Your task to perform on an android device: change the upload size in google photos Image 0: 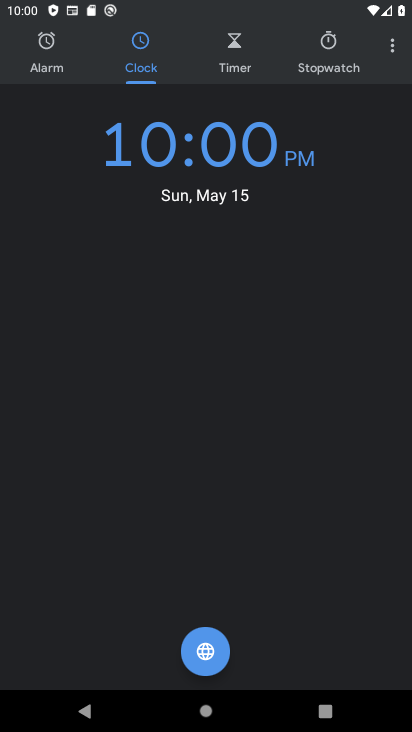
Step 0: press home button
Your task to perform on an android device: change the upload size in google photos Image 1: 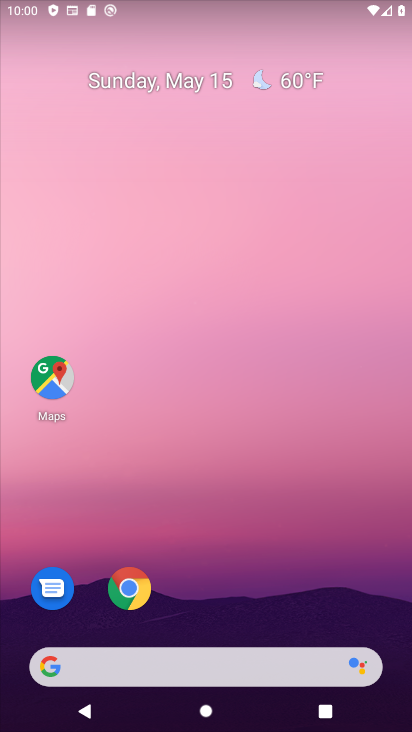
Step 1: drag from (291, 602) to (254, 188)
Your task to perform on an android device: change the upload size in google photos Image 2: 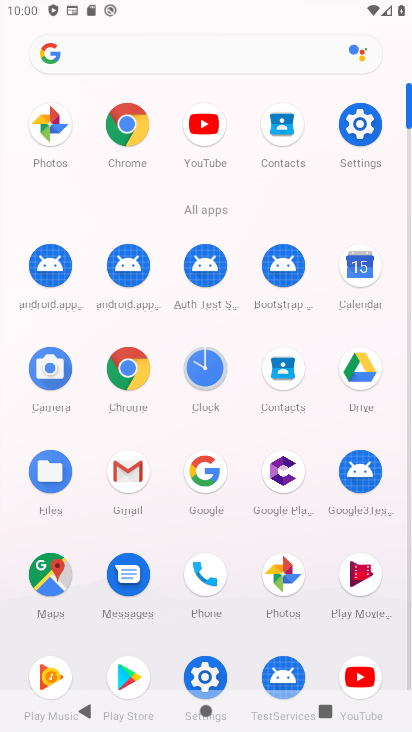
Step 2: click (45, 143)
Your task to perform on an android device: change the upload size in google photos Image 3: 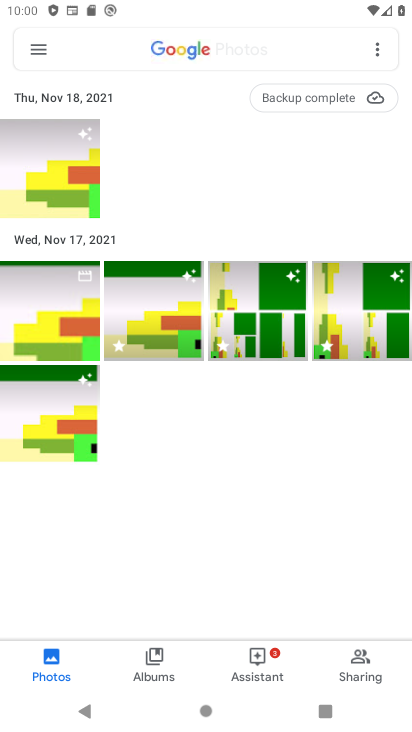
Step 3: click (42, 53)
Your task to perform on an android device: change the upload size in google photos Image 4: 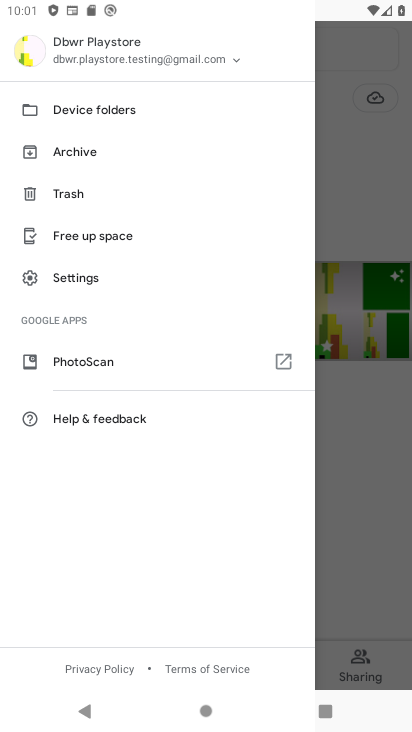
Step 4: click (96, 275)
Your task to perform on an android device: change the upload size in google photos Image 5: 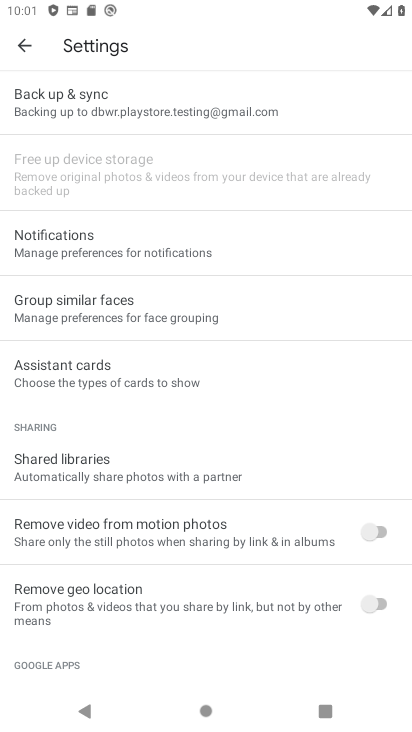
Step 5: click (192, 122)
Your task to perform on an android device: change the upload size in google photos Image 6: 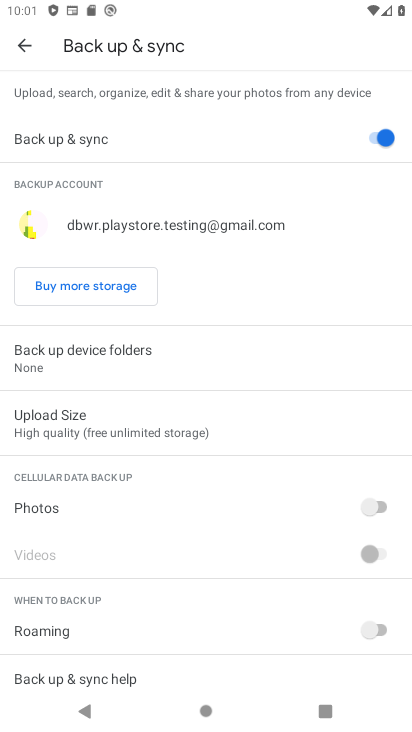
Step 6: click (125, 426)
Your task to perform on an android device: change the upload size in google photos Image 7: 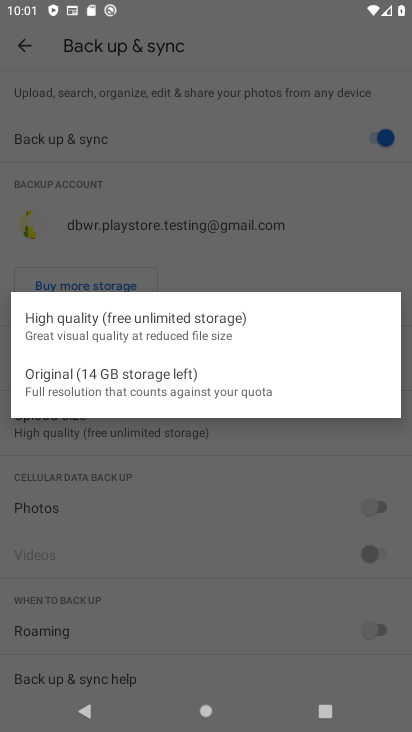
Step 7: click (164, 384)
Your task to perform on an android device: change the upload size in google photos Image 8: 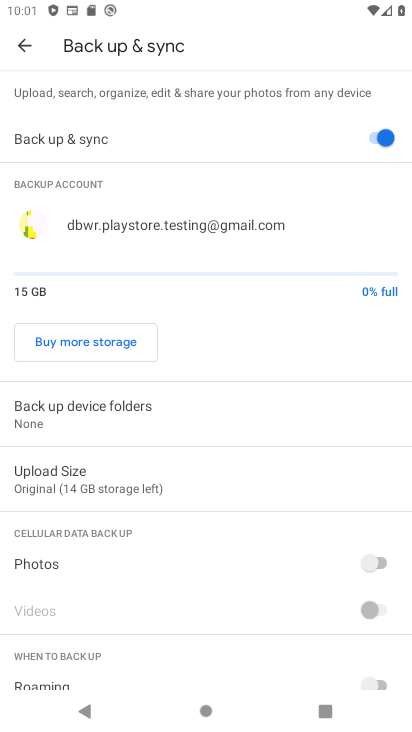
Step 8: task complete